Your task to perform on an android device: Add "asus rog" to the cart on walmart, then select checkout. Image 0: 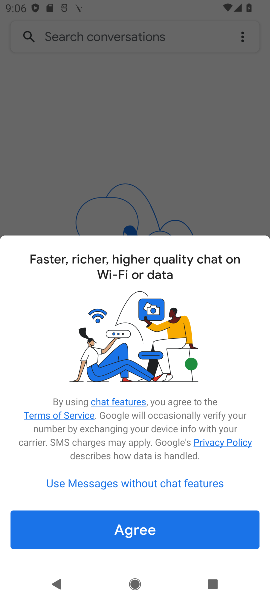
Step 0: press home button
Your task to perform on an android device: Add "asus rog" to the cart on walmart, then select checkout. Image 1: 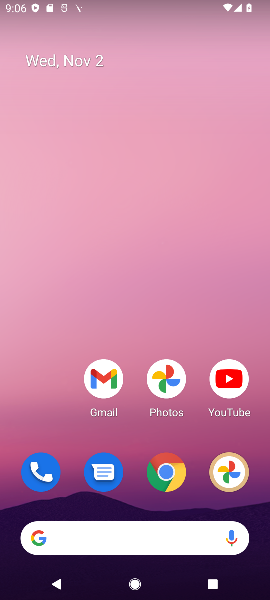
Step 1: click (158, 479)
Your task to perform on an android device: Add "asus rog" to the cart on walmart, then select checkout. Image 2: 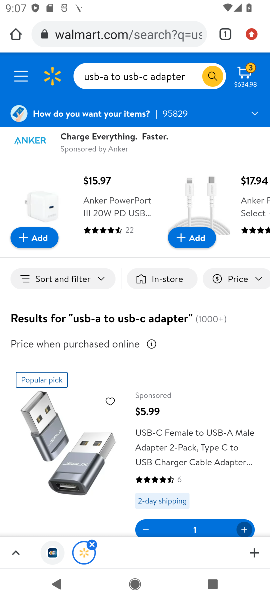
Step 2: click (208, 76)
Your task to perform on an android device: Add "asus rog" to the cart on walmart, then select checkout. Image 3: 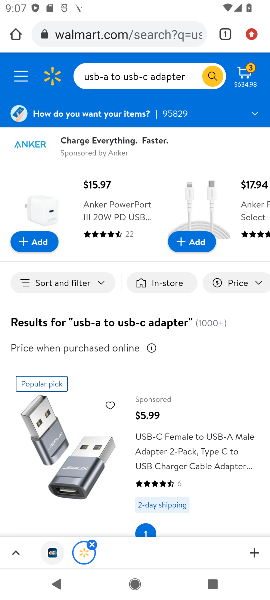
Step 3: click (148, 74)
Your task to perform on an android device: Add "asus rog" to the cart on walmart, then select checkout. Image 4: 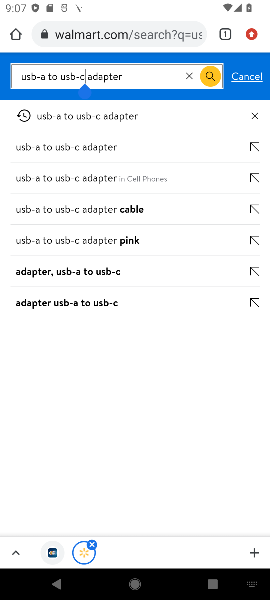
Step 4: click (188, 75)
Your task to perform on an android device: Add "asus rog" to the cart on walmart, then select checkout. Image 5: 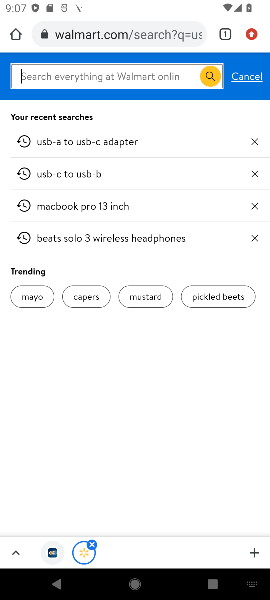
Step 5: type "asus rog"
Your task to perform on an android device: Add "asus rog" to the cart on walmart, then select checkout. Image 6: 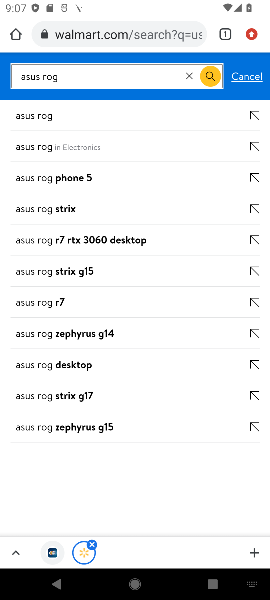
Step 6: click (25, 115)
Your task to perform on an android device: Add "asus rog" to the cart on walmart, then select checkout. Image 7: 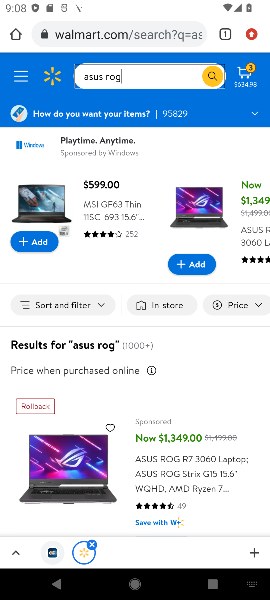
Step 7: drag from (149, 455) to (105, 196)
Your task to perform on an android device: Add "asus rog" to the cart on walmart, then select checkout. Image 8: 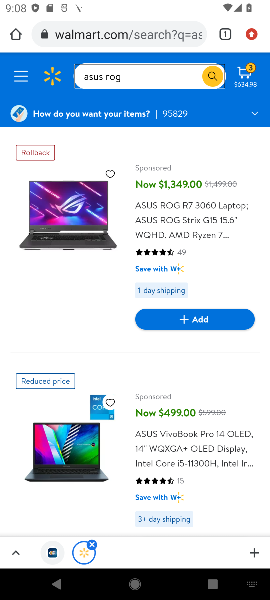
Step 8: click (193, 324)
Your task to perform on an android device: Add "asus rog" to the cart on walmart, then select checkout. Image 9: 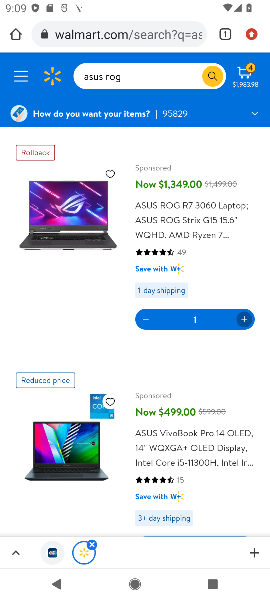
Step 9: click (246, 71)
Your task to perform on an android device: Add "asus rog" to the cart on walmart, then select checkout. Image 10: 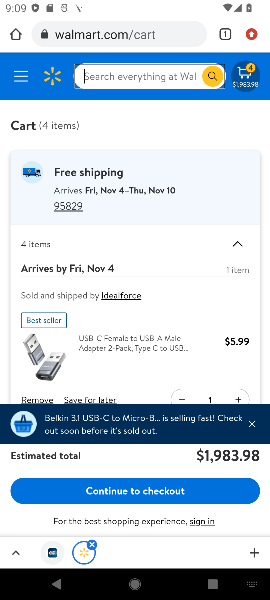
Step 10: click (127, 487)
Your task to perform on an android device: Add "asus rog" to the cart on walmart, then select checkout. Image 11: 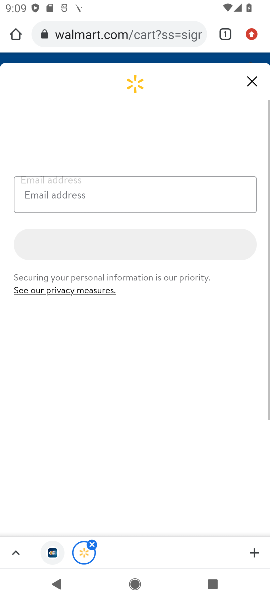
Step 11: task complete